Your task to perform on an android device: Open Google Image 0: 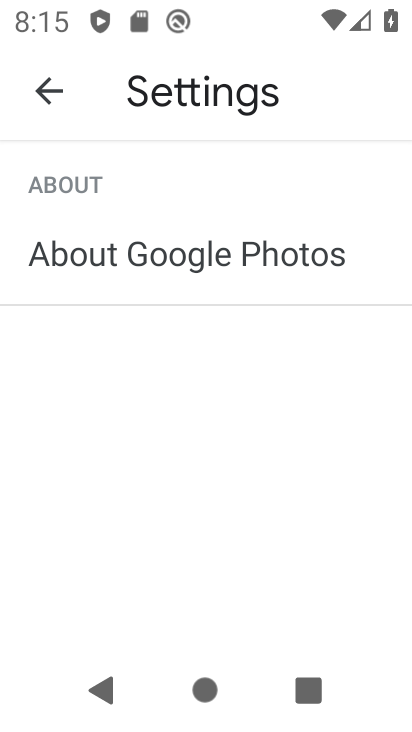
Step 0: press home button
Your task to perform on an android device: Open Google Image 1: 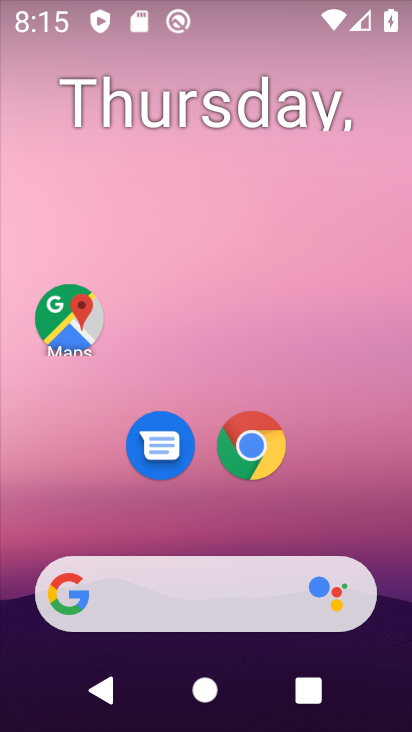
Step 1: click (200, 580)
Your task to perform on an android device: Open Google Image 2: 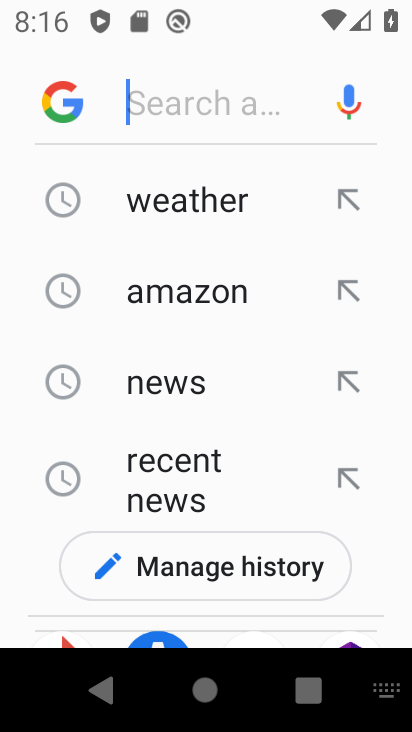
Step 2: task complete